Your task to perform on an android device: find which apps use the phone's location Image 0: 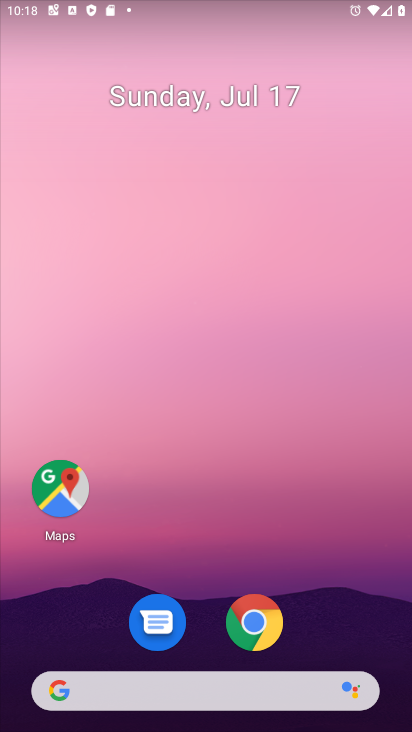
Step 0: drag from (135, 683) to (270, 12)
Your task to perform on an android device: find which apps use the phone's location Image 1: 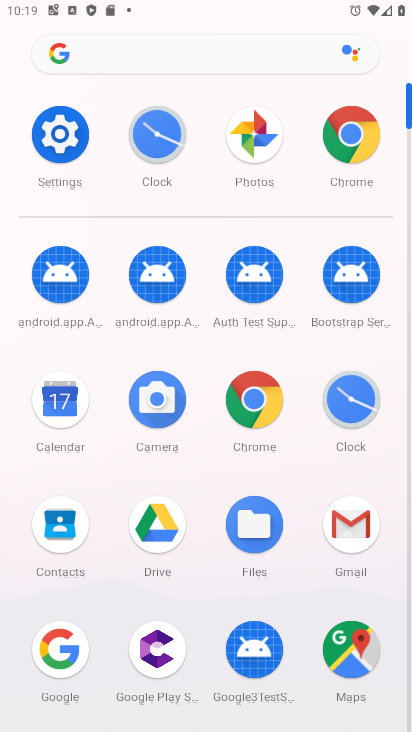
Step 1: click (71, 142)
Your task to perform on an android device: find which apps use the phone's location Image 2: 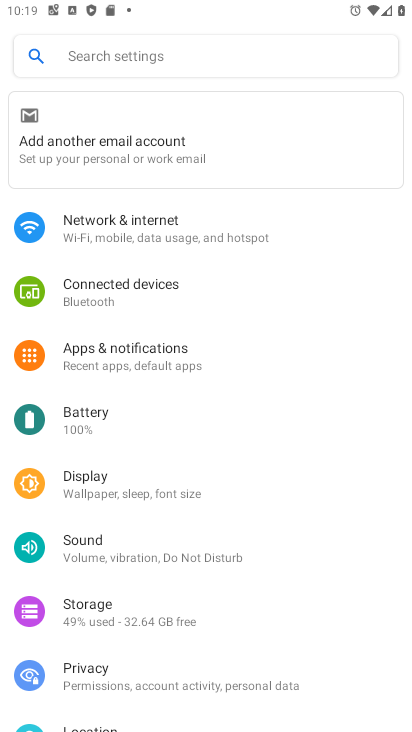
Step 2: drag from (158, 589) to (382, 5)
Your task to perform on an android device: find which apps use the phone's location Image 3: 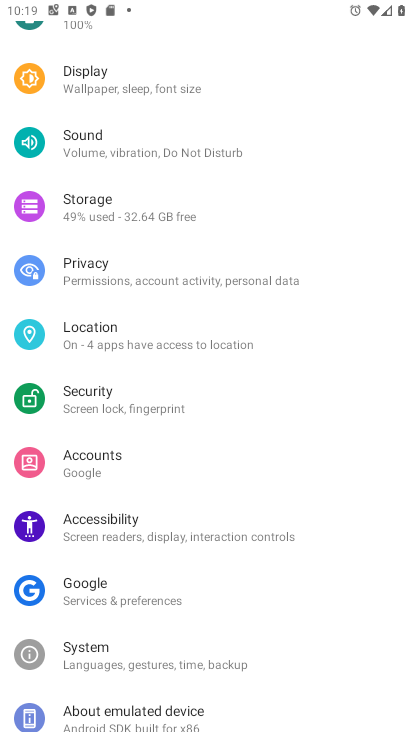
Step 3: drag from (180, 635) to (348, 20)
Your task to perform on an android device: find which apps use the phone's location Image 4: 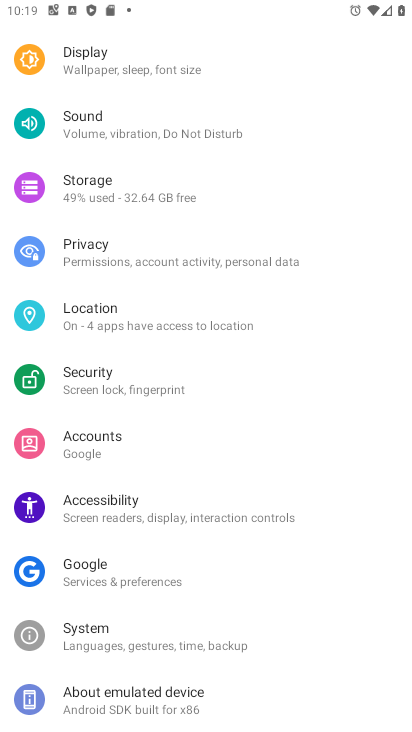
Step 4: click (223, 316)
Your task to perform on an android device: find which apps use the phone's location Image 5: 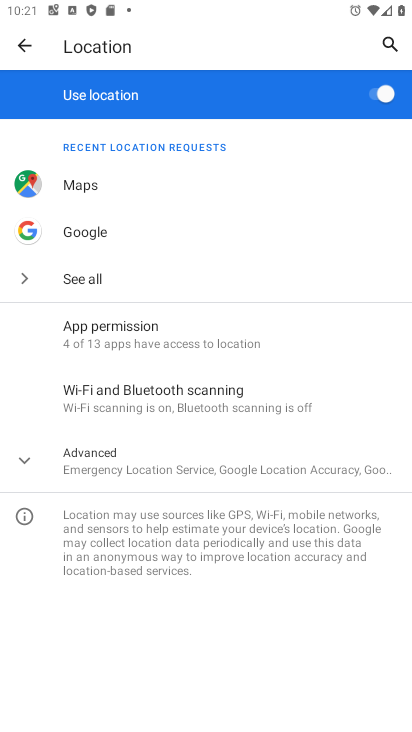
Step 5: click (85, 335)
Your task to perform on an android device: find which apps use the phone's location Image 6: 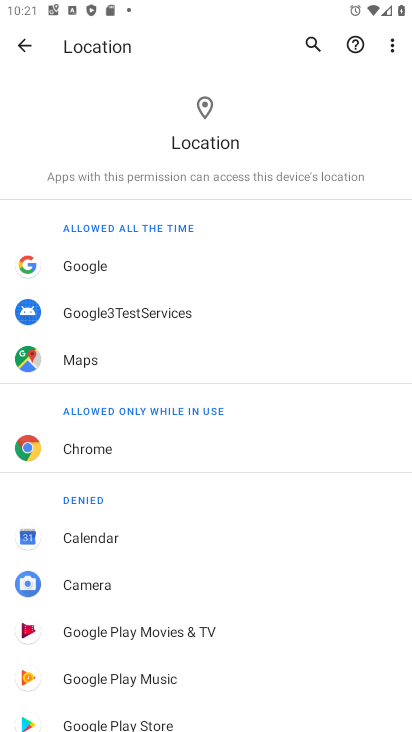
Step 6: task complete